Your task to perform on an android device: Open calendar and show me the second week of next month Image 0: 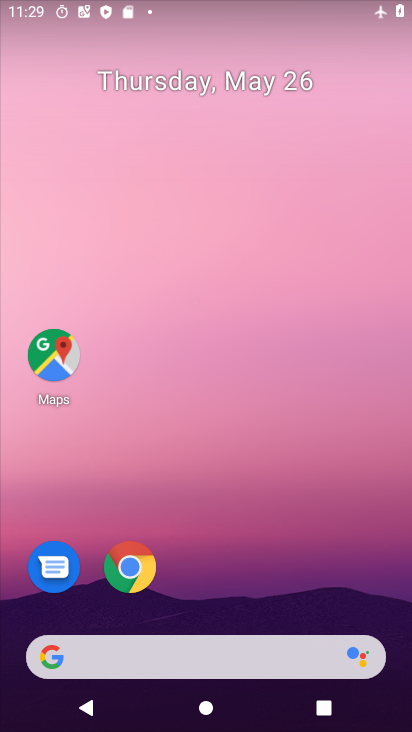
Step 0: drag from (161, 670) to (174, 134)
Your task to perform on an android device: Open calendar and show me the second week of next month Image 1: 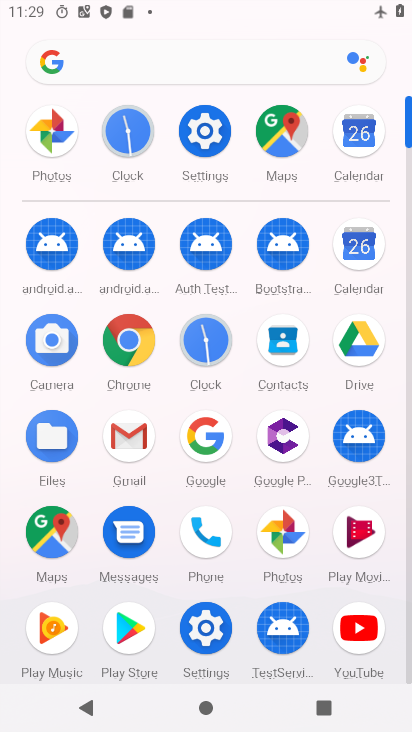
Step 1: click (367, 270)
Your task to perform on an android device: Open calendar and show me the second week of next month Image 2: 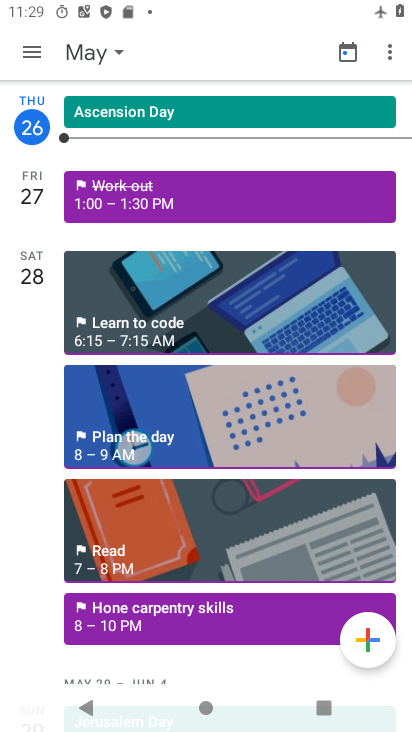
Step 2: click (92, 49)
Your task to perform on an android device: Open calendar and show me the second week of next month Image 3: 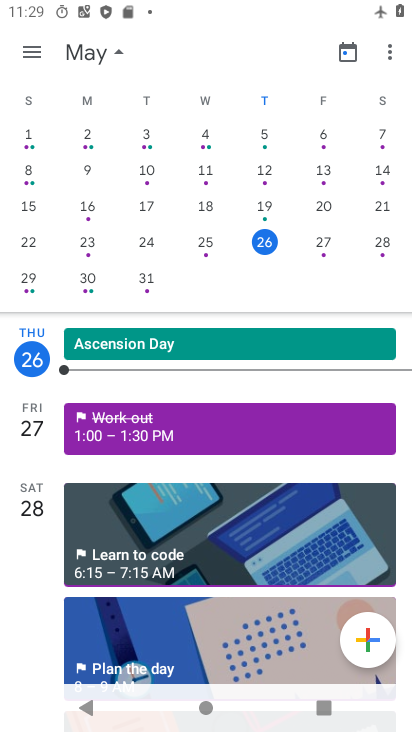
Step 3: drag from (371, 179) to (14, 183)
Your task to perform on an android device: Open calendar and show me the second week of next month Image 4: 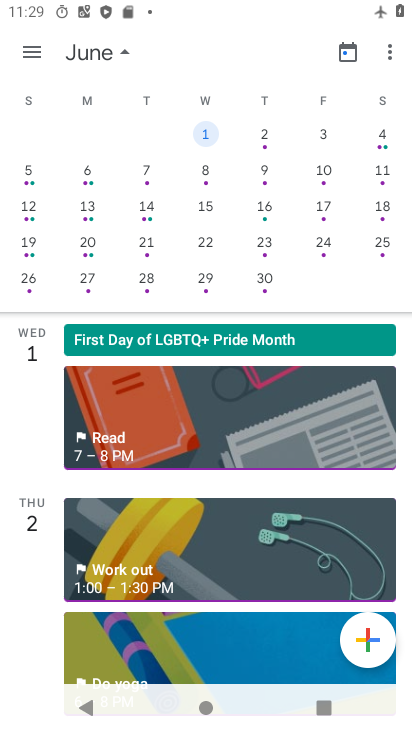
Step 4: click (34, 175)
Your task to perform on an android device: Open calendar and show me the second week of next month Image 5: 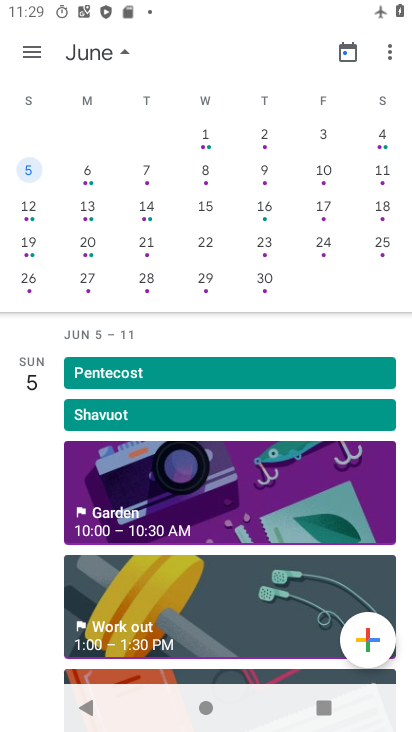
Step 5: task complete